Your task to perform on an android device: install app "Truecaller" Image 0: 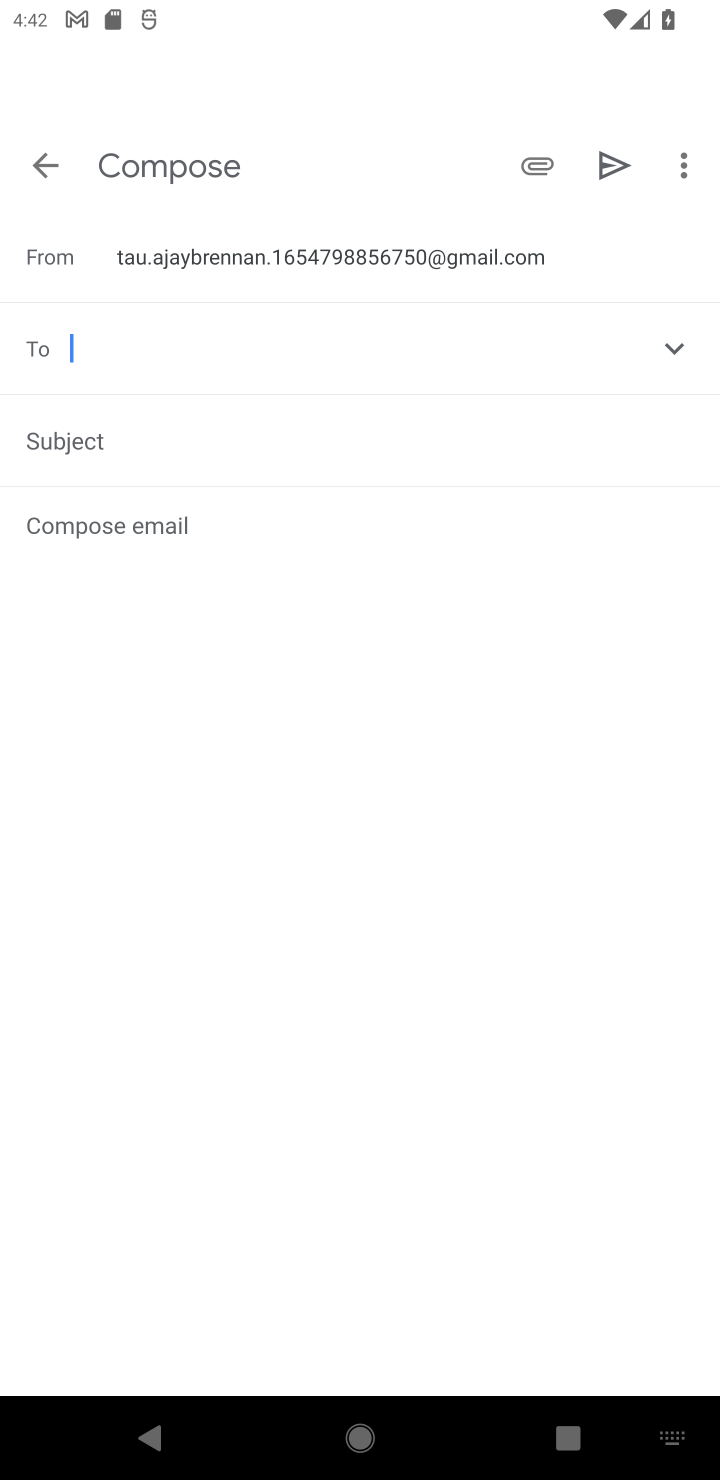
Step 0: press home button
Your task to perform on an android device: install app "Truecaller" Image 1: 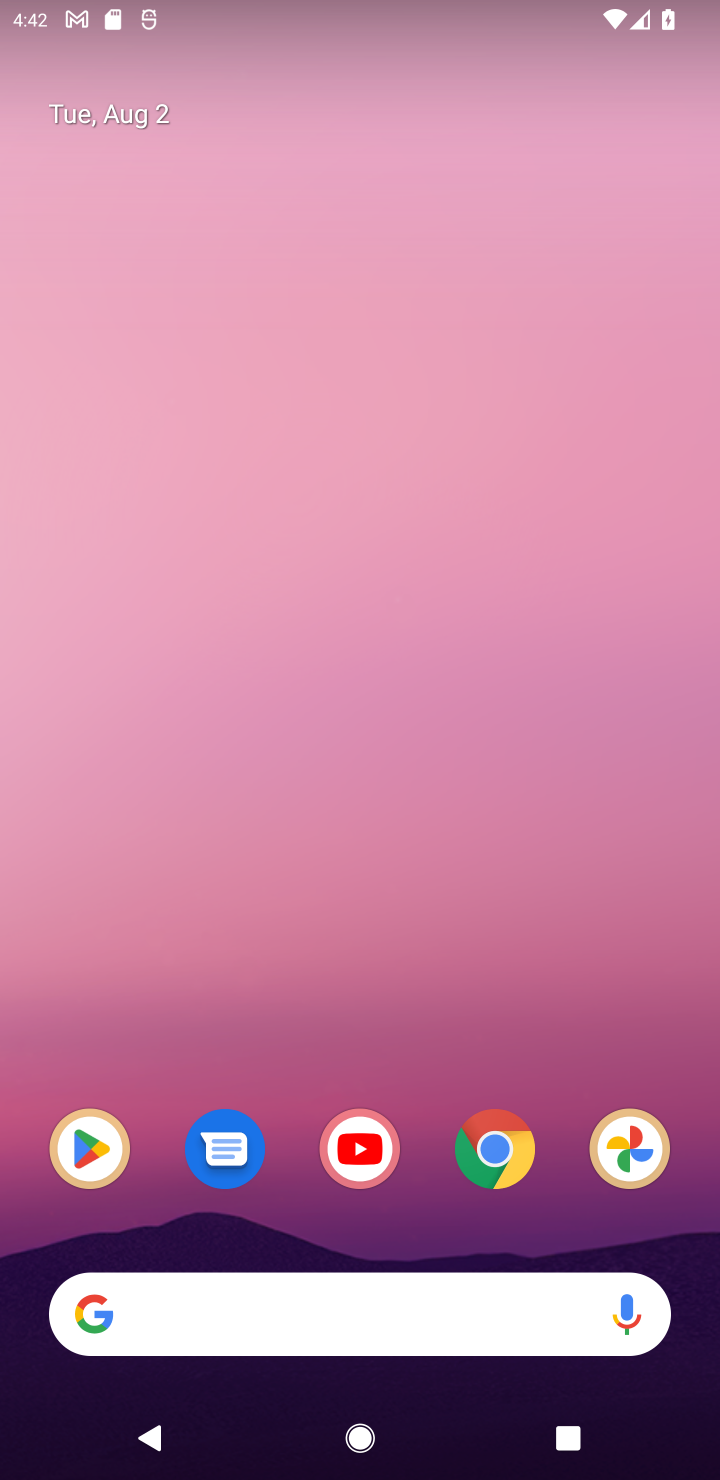
Step 1: click (78, 1151)
Your task to perform on an android device: install app "Truecaller" Image 2: 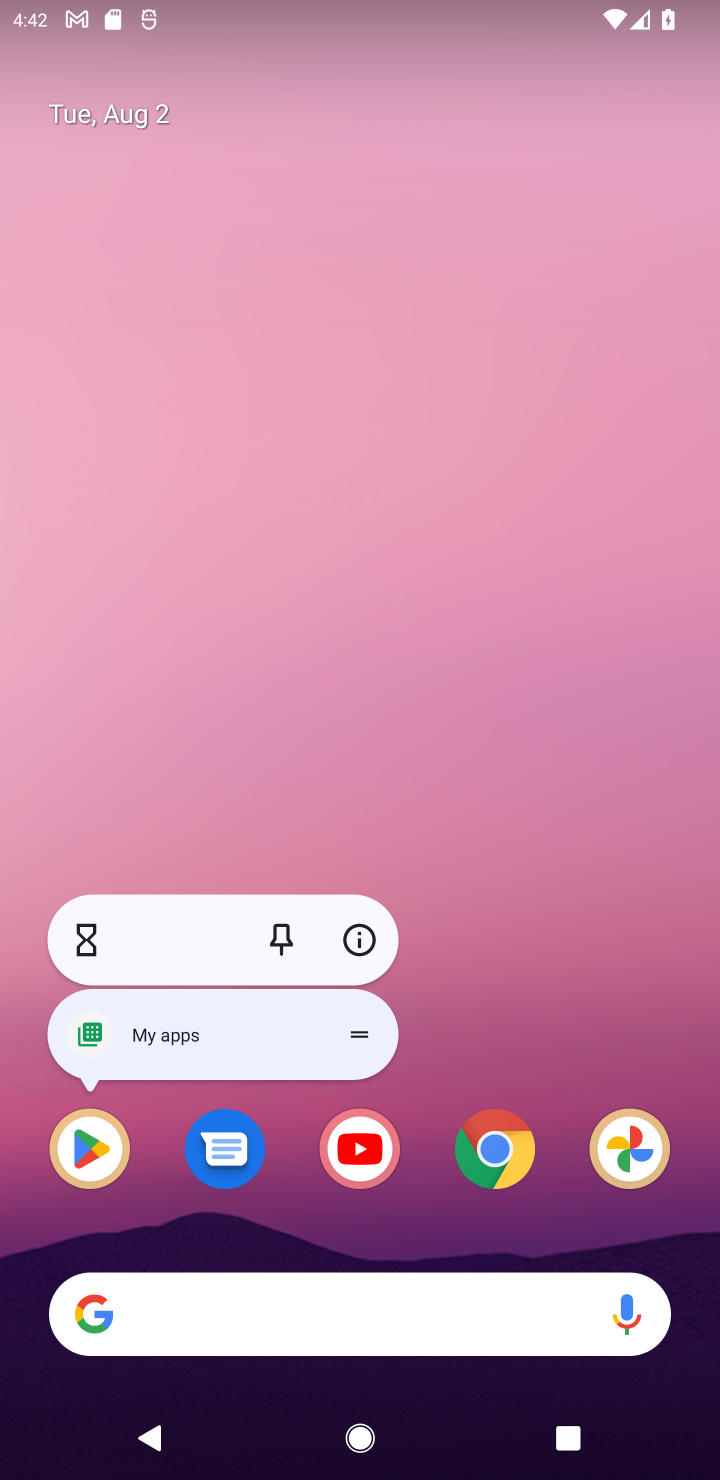
Step 2: click (82, 1151)
Your task to perform on an android device: install app "Truecaller" Image 3: 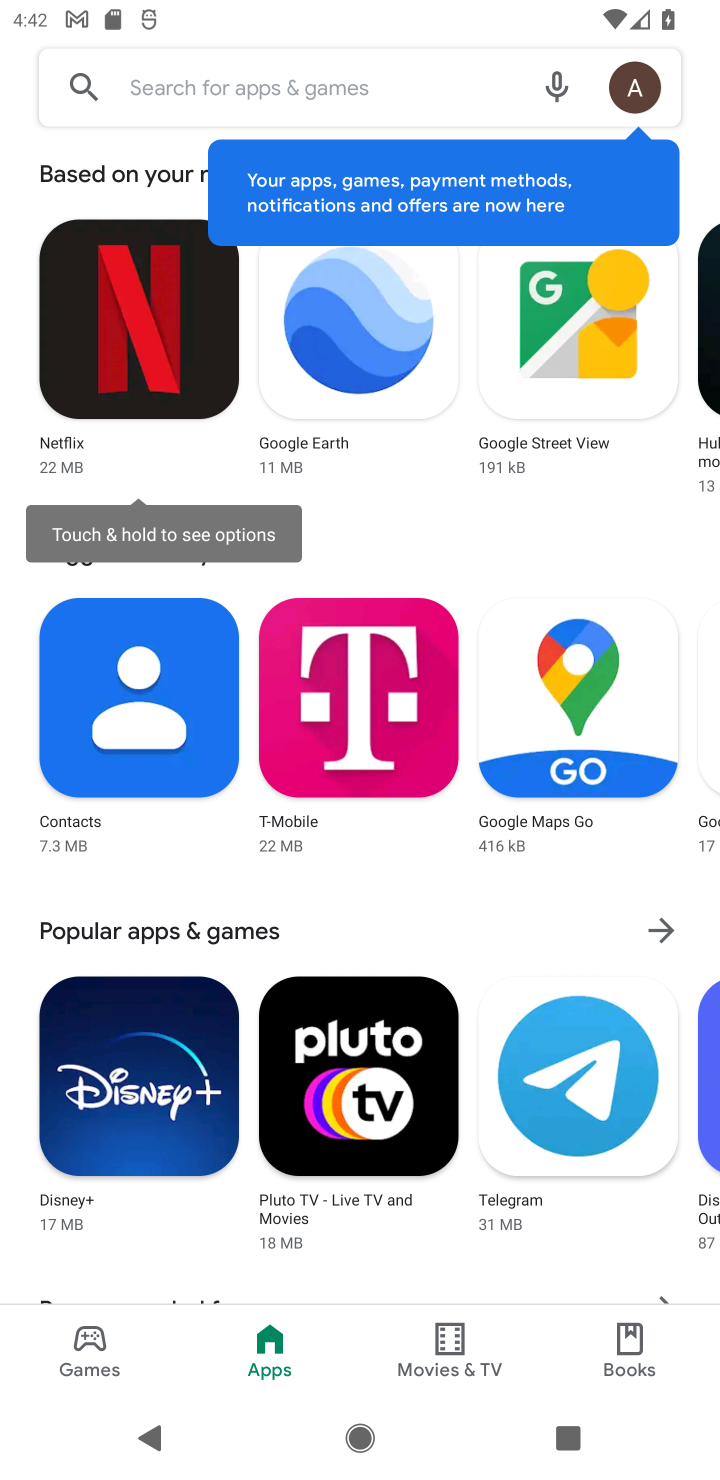
Step 3: click (172, 90)
Your task to perform on an android device: install app "Truecaller" Image 4: 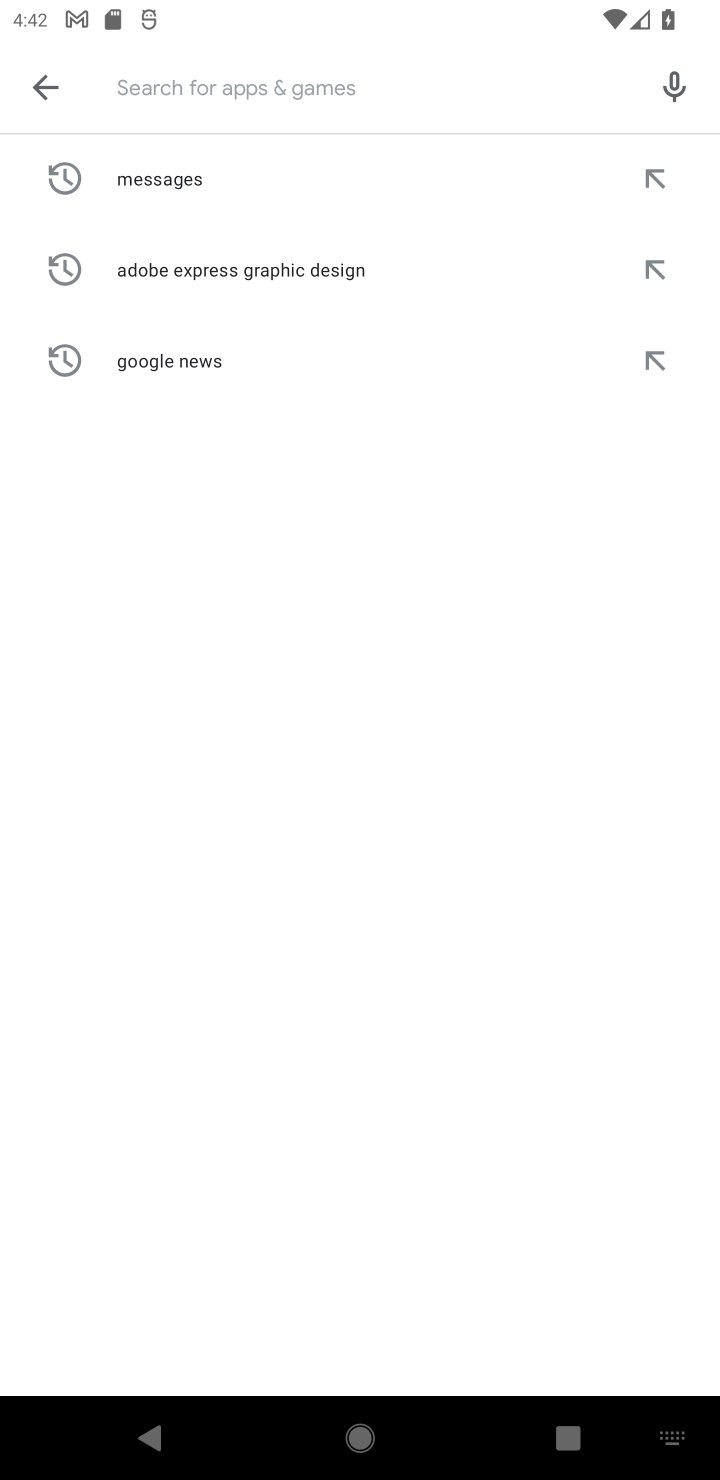
Step 4: type "Truecaller"
Your task to perform on an android device: install app "Truecaller" Image 5: 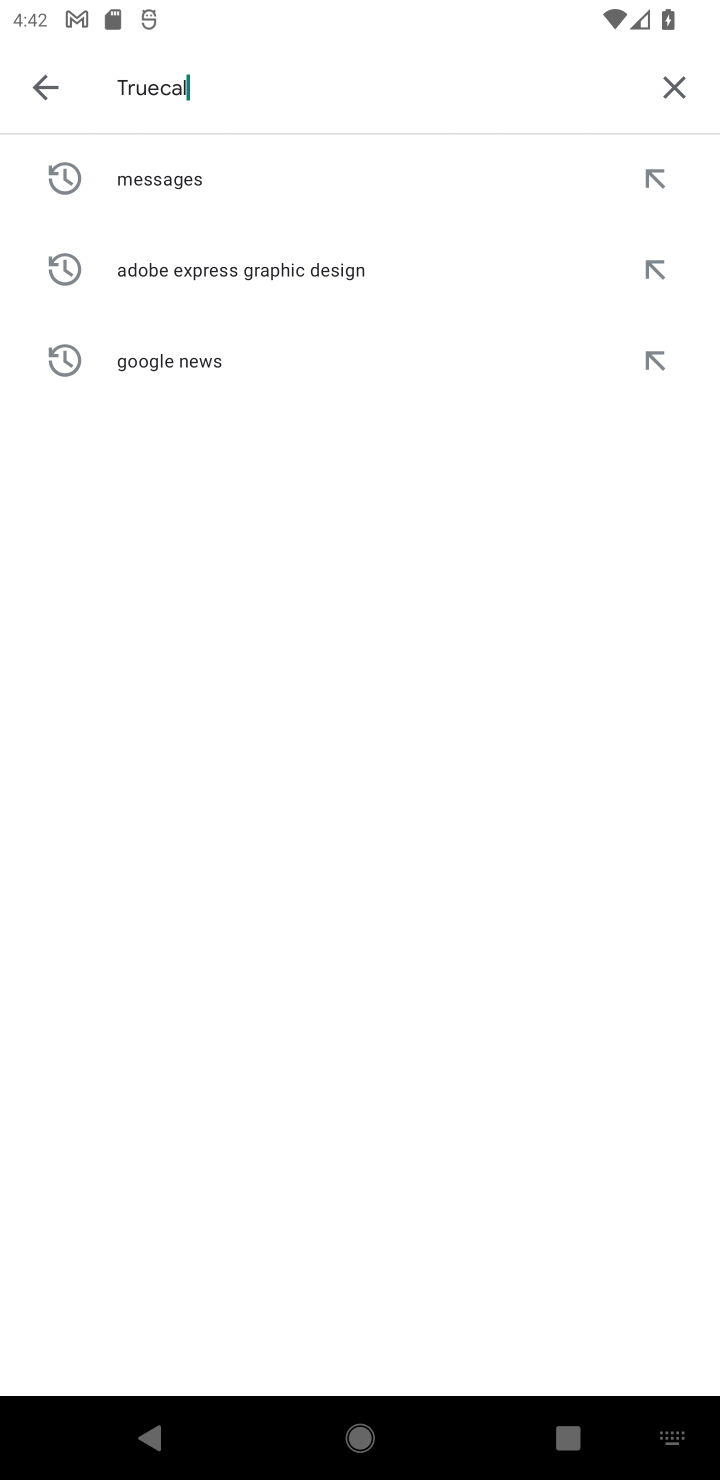
Step 5: type ""
Your task to perform on an android device: install app "Truecaller" Image 6: 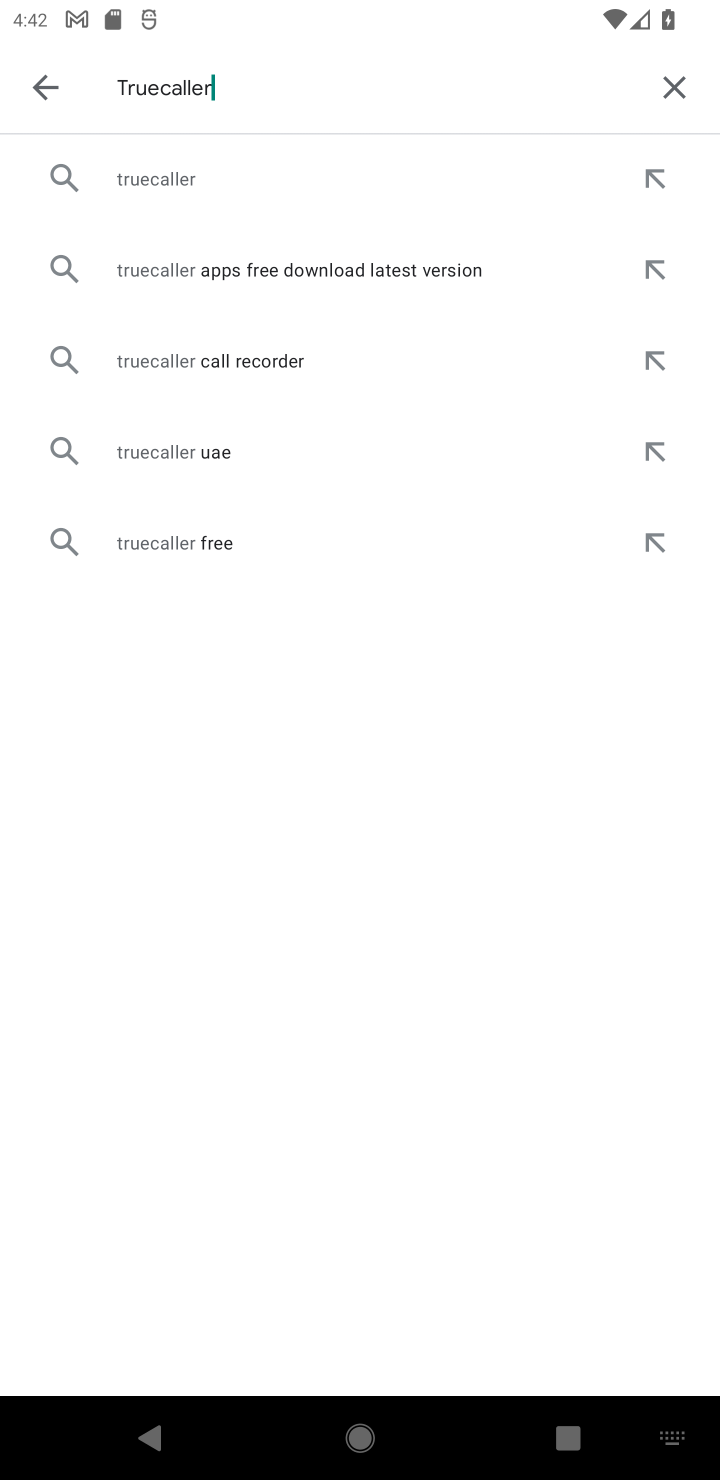
Step 6: click (189, 157)
Your task to perform on an android device: install app "Truecaller" Image 7: 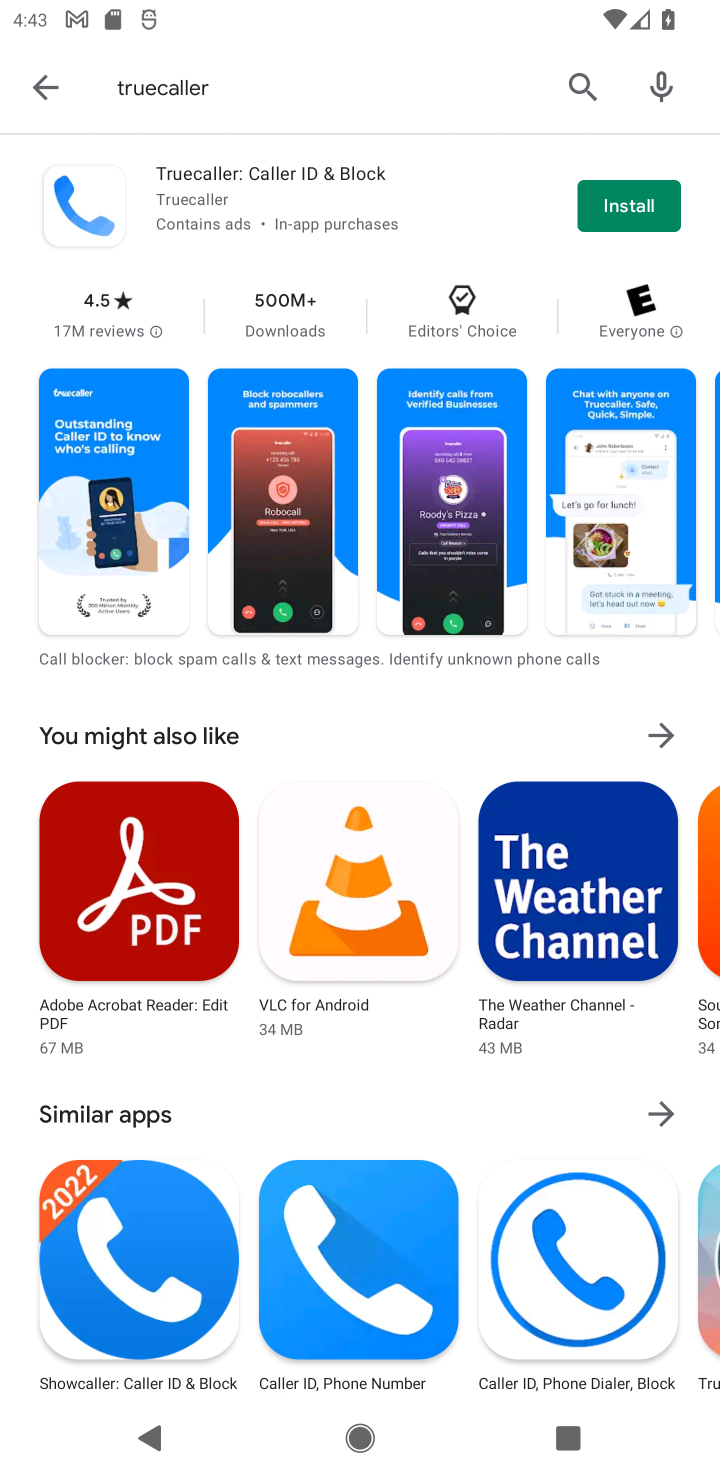
Step 7: click (652, 198)
Your task to perform on an android device: install app "Truecaller" Image 8: 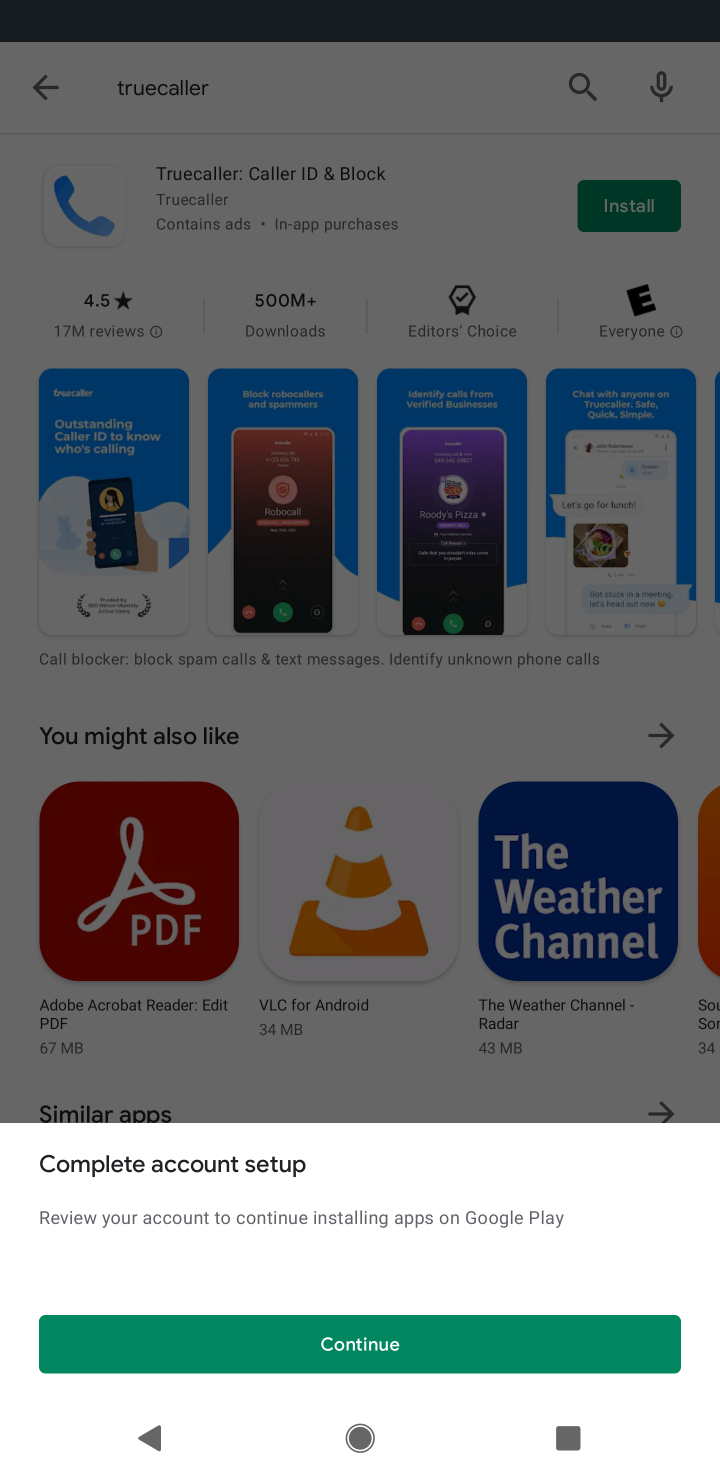
Step 8: click (358, 1343)
Your task to perform on an android device: install app "Truecaller" Image 9: 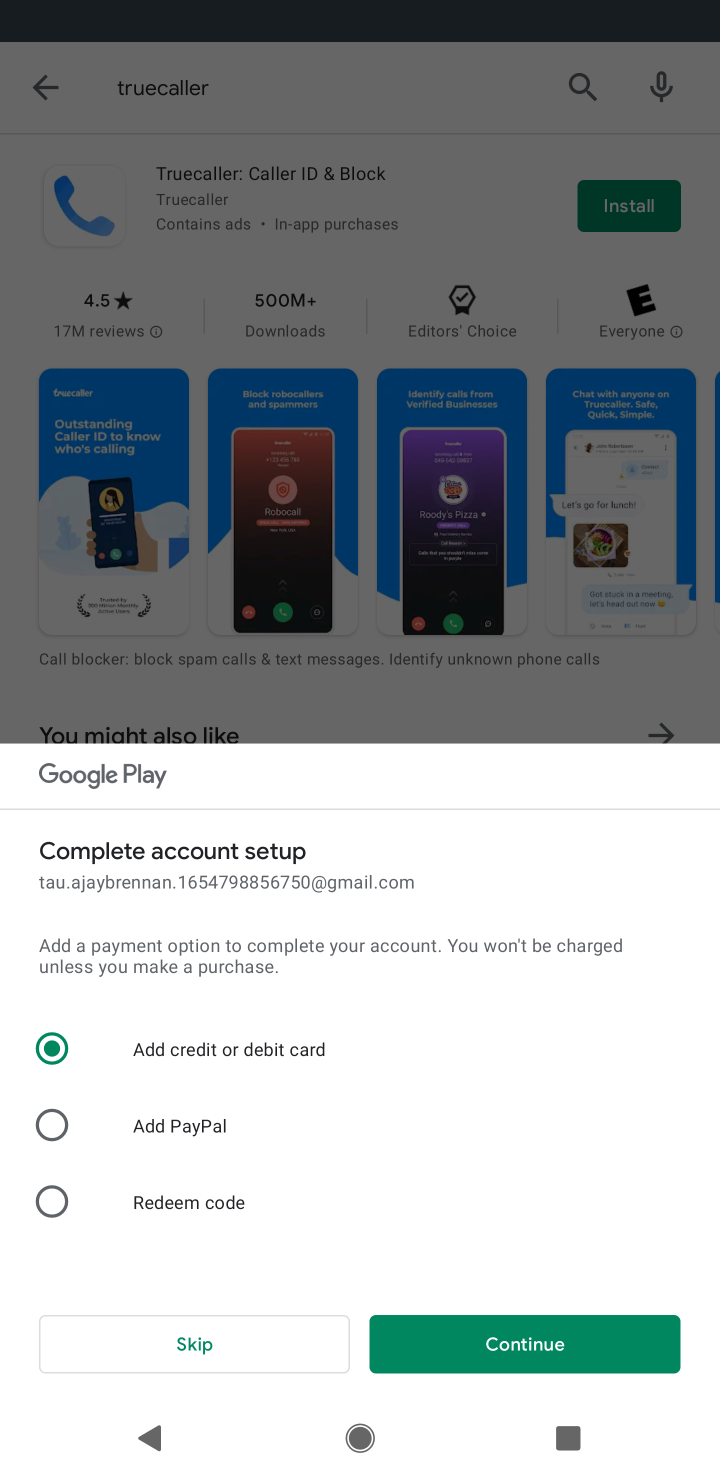
Step 9: click (61, 1193)
Your task to perform on an android device: install app "Truecaller" Image 10: 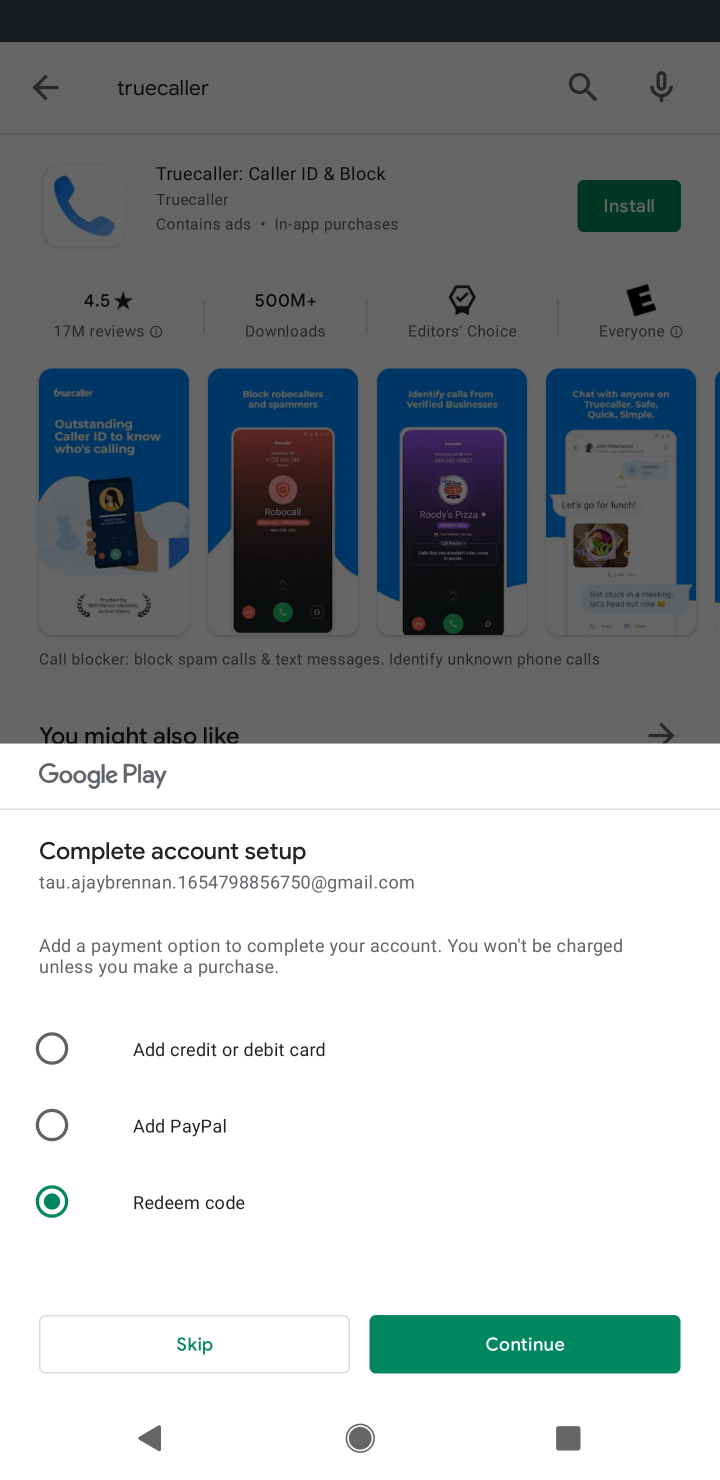
Step 10: click (194, 1331)
Your task to perform on an android device: install app "Truecaller" Image 11: 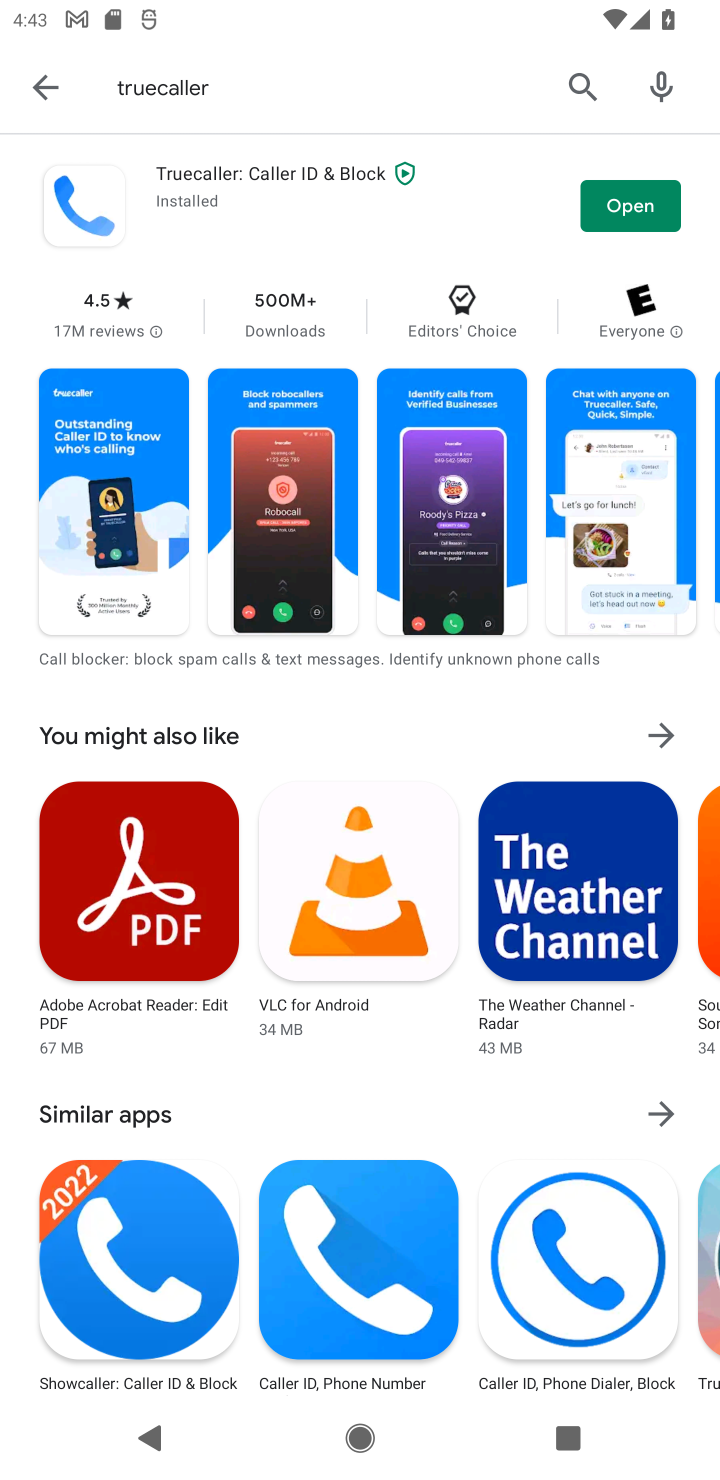
Step 11: task complete